Your task to perform on an android device: Is it going to rain tomorrow? Image 0: 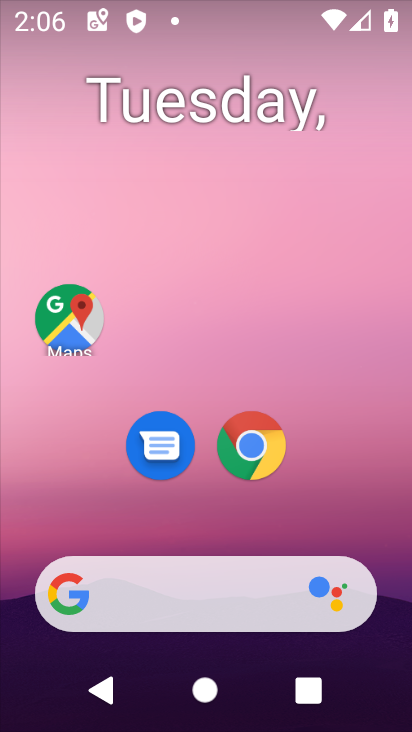
Step 0: drag from (182, 517) to (189, 9)
Your task to perform on an android device: Is it going to rain tomorrow? Image 1: 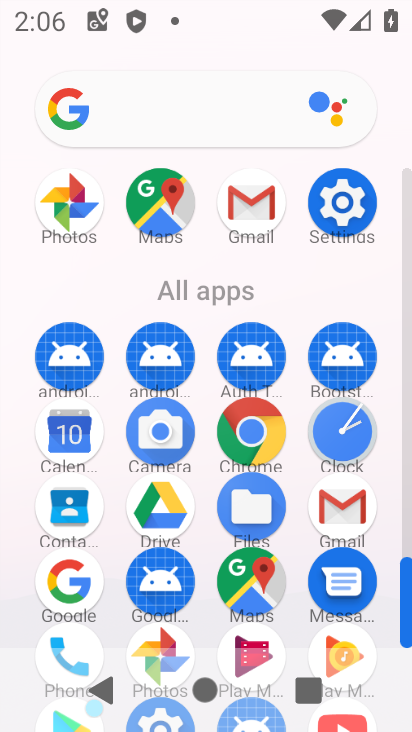
Step 1: click (150, 116)
Your task to perform on an android device: Is it going to rain tomorrow? Image 2: 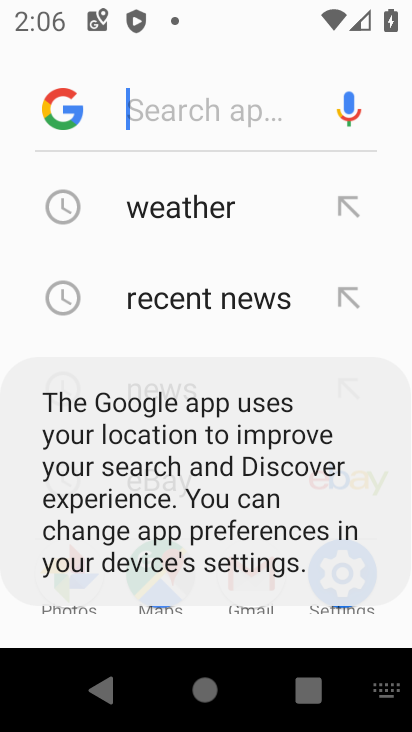
Step 2: click (189, 205)
Your task to perform on an android device: Is it going to rain tomorrow? Image 3: 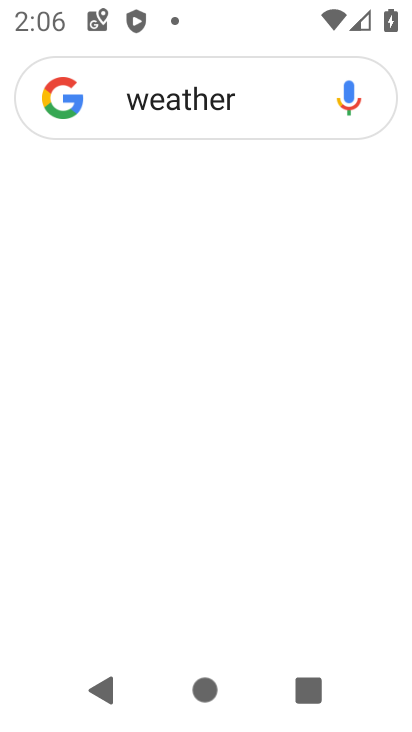
Step 3: click (208, 221)
Your task to perform on an android device: Is it going to rain tomorrow? Image 4: 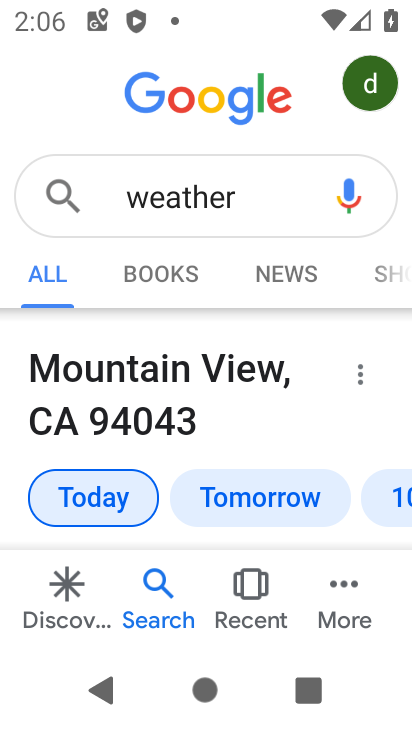
Step 4: task complete